Your task to perform on an android device: Turn on the flashlight Image 0: 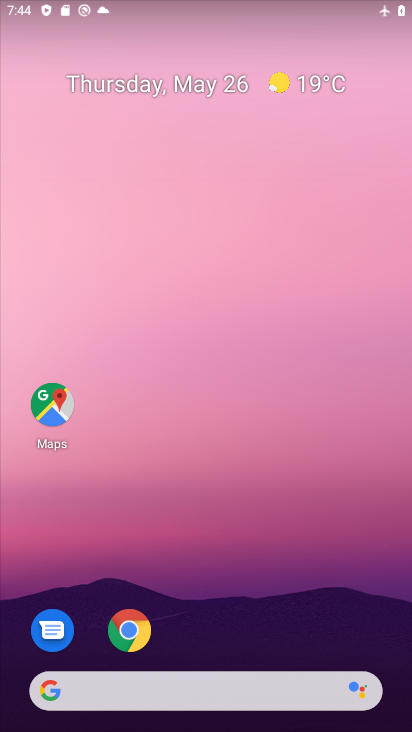
Step 0: drag from (259, 647) to (239, 213)
Your task to perform on an android device: Turn on the flashlight Image 1: 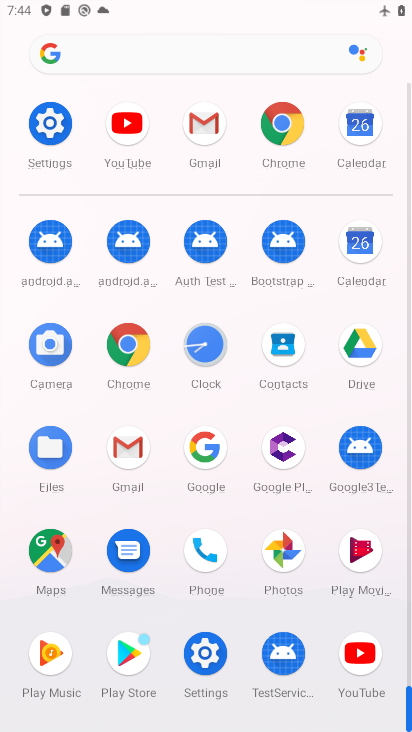
Step 1: click (204, 649)
Your task to perform on an android device: Turn on the flashlight Image 2: 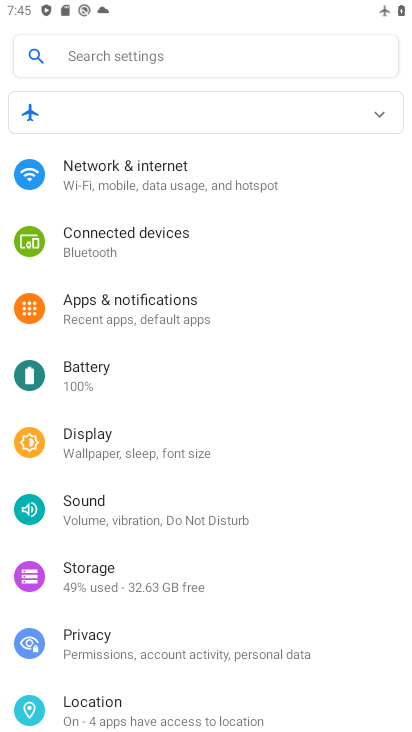
Step 2: click (154, 463)
Your task to perform on an android device: Turn on the flashlight Image 3: 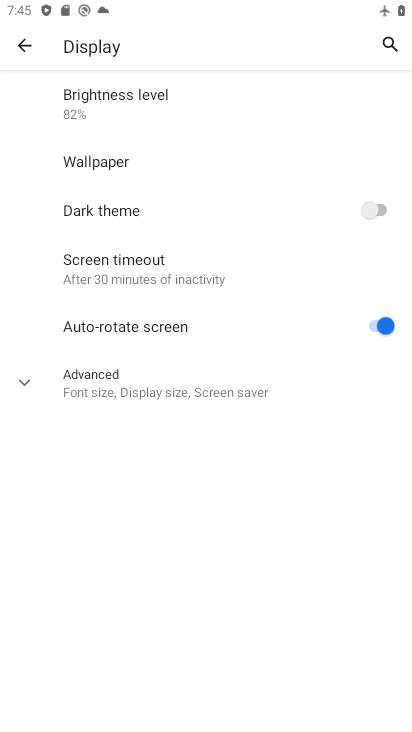
Step 3: click (115, 385)
Your task to perform on an android device: Turn on the flashlight Image 4: 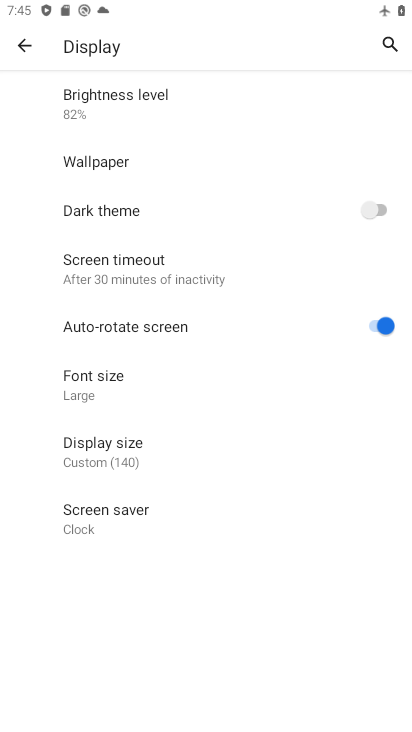
Step 4: task complete